Your task to perform on an android device: check the backup settings in the google photos Image 0: 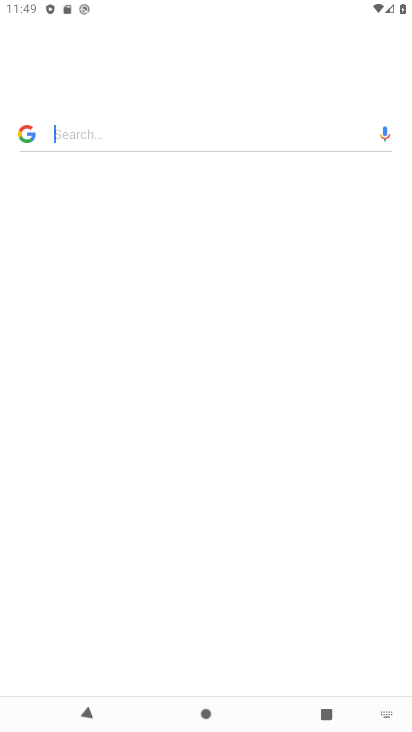
Step 0: drag from (10, 273) to (390, 384)
Your task to perform on an android device: check the backup settings in the google photos Image 1: 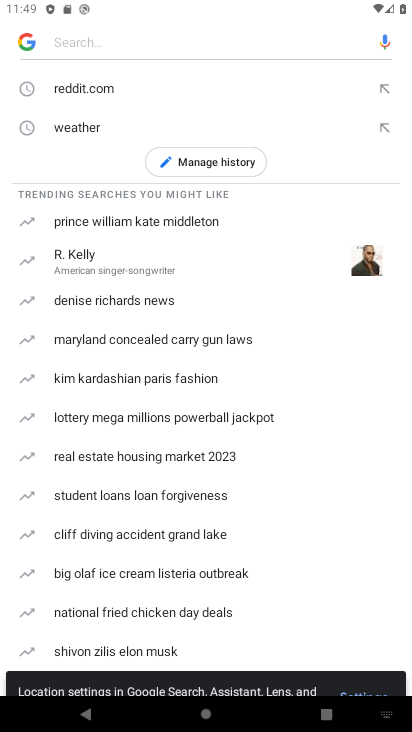
Step 1: press home button
Your task to perform on an android device: check the backup settings in the google photos Image 2: 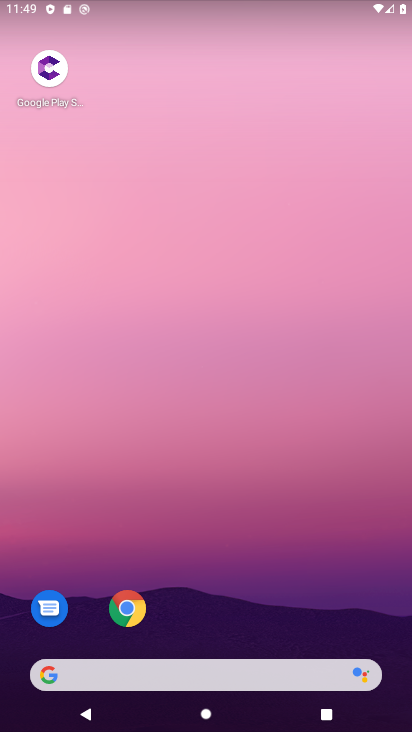
Step 2: drag from (216, 553) to (130, 20)
Your task to perform on an android device: check the backup settings in the google photos Image 3: 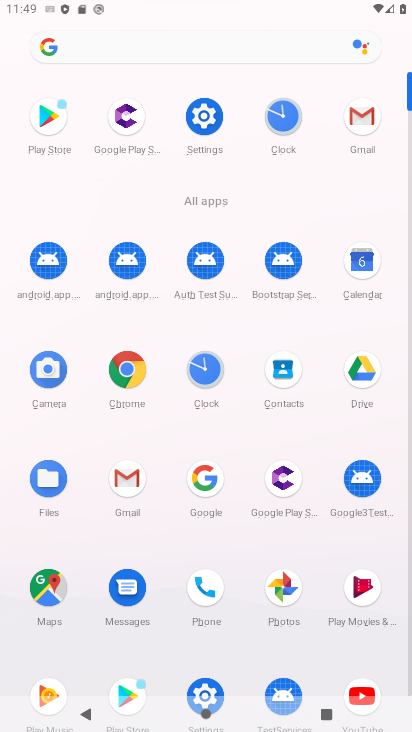
Step 3: click (275, 580)
Your task to perform on an android device: check the backup settings in the google photos Image 4: 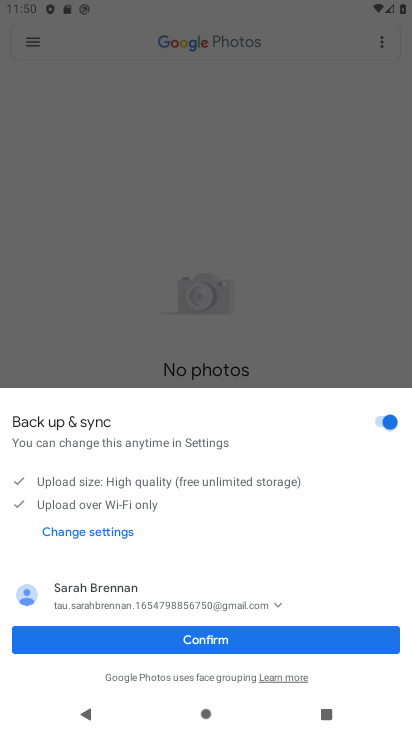
Step 4: click (198, 644)
Your task to perform on an android device: check the backup settings in the google photos Image 5: 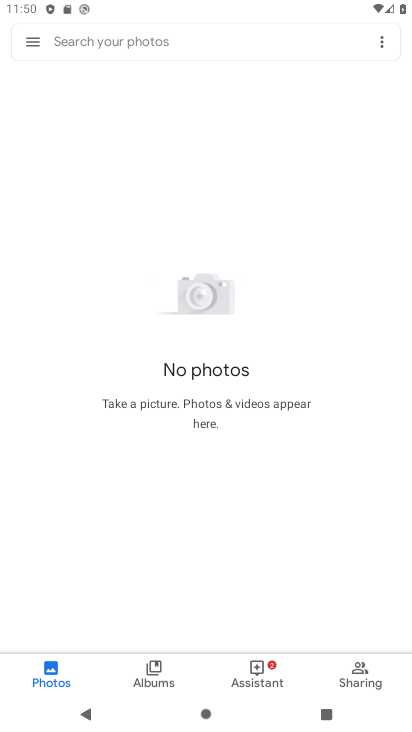
Step 5: click (32, 35)
Your task to perform on an android device: check the backup settings in the google photos Image 6: 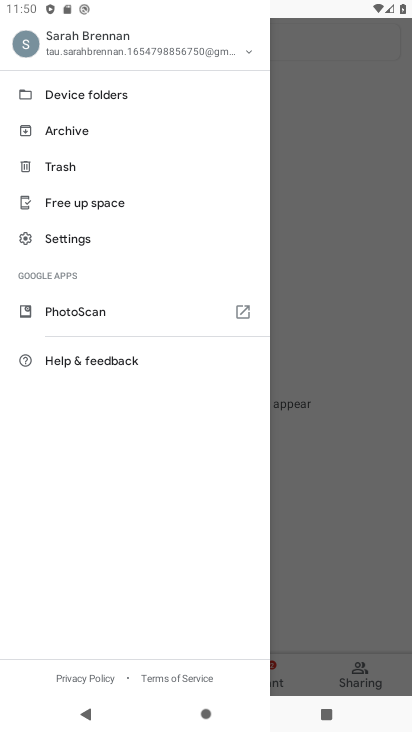
Step 6: click (70, 235)
Your task to perform on an android device: check the backup settings in the google photos Image 7: 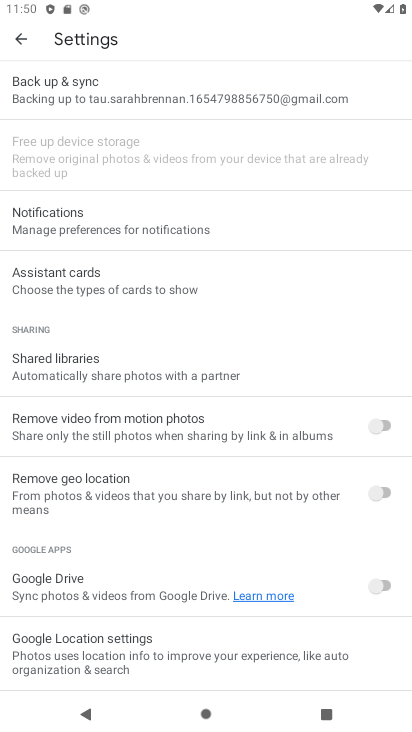
Step 7: click (72, 78)
Your task to perform on an android device: check the backup settings in the google photos Image 8: 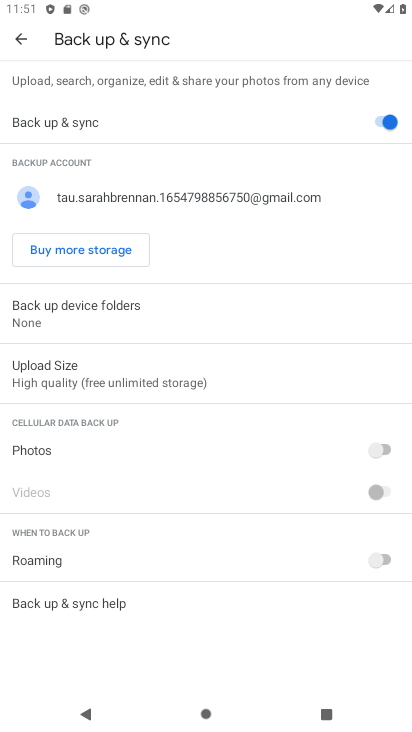
Step 8: task complete